Your task to perform on an android device: Open Amazon Image 0: 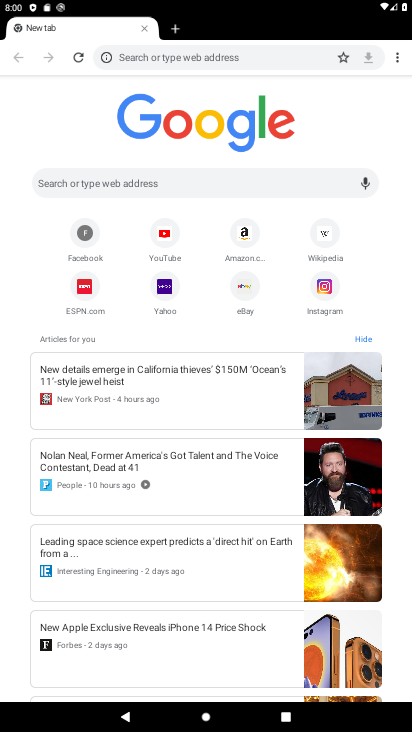
Step 0: drag from (181, 635) to (203, 278)
Your task to perform on an android device: Open Amazon Image 1: 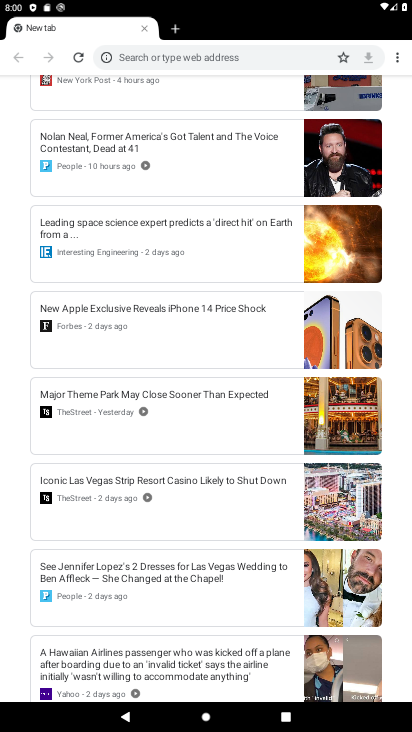
Step 1: drag from (151, 227) to (333, 726)
Your task to perform on an android device: Open Amazon Image 2: 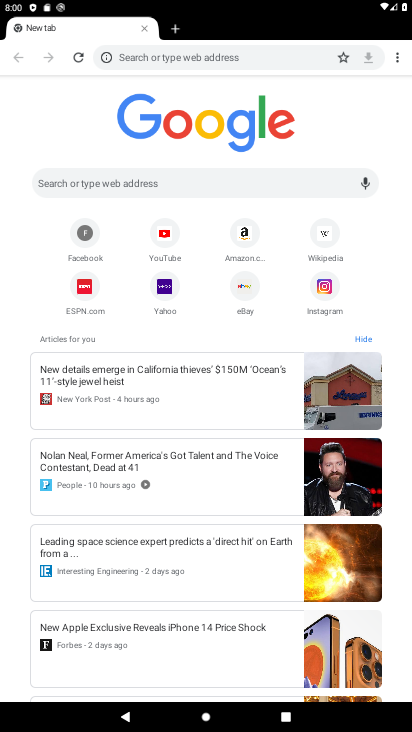
Step 2: click (244, 240)
Your task to perform on an android device: Open Amazon Image 3: 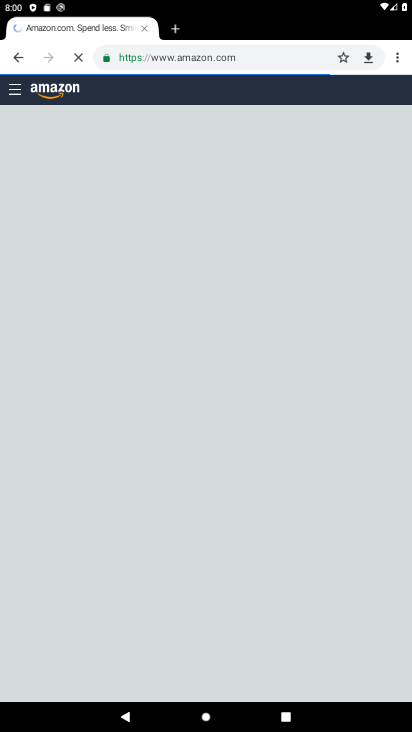
Step 3: task complete